Your task to perform on an android device: manage bookmarks in the chrome app Image 0: 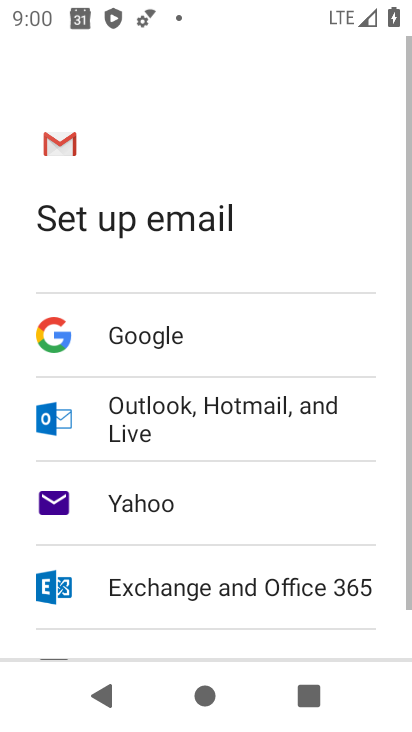
Step 0: press home button
Your task to perform on an android device: manage bookmarks in the chrome app Image 1: 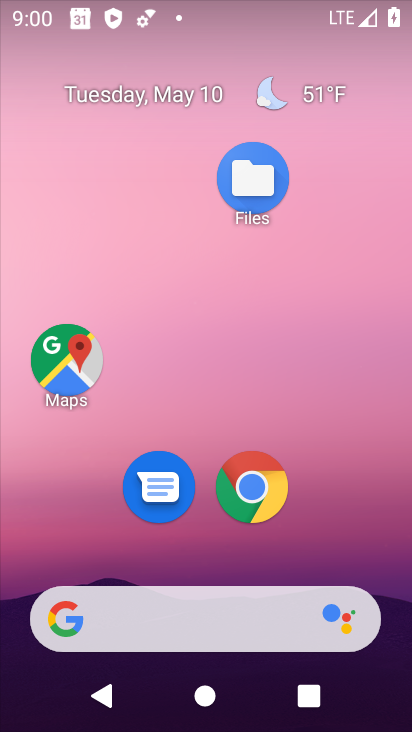
Step 1: click (261, 491)
Your task to perform on an android device: manage bookmarks in the chrome app Image 2: 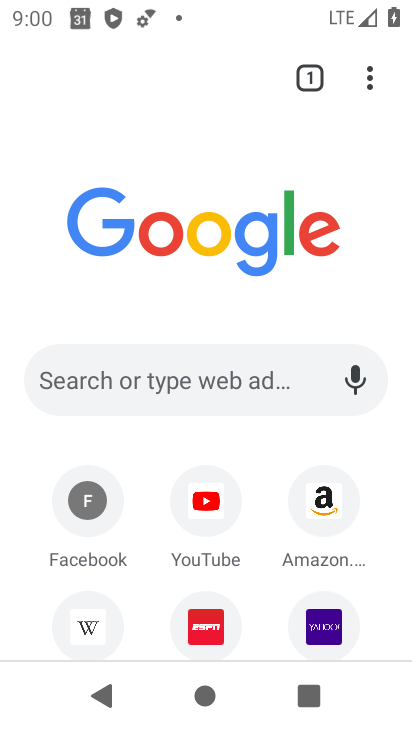
Step 2: click (363, 81)
Your task to perform on an android device: manage bookmarks in the chrome app Image 3: 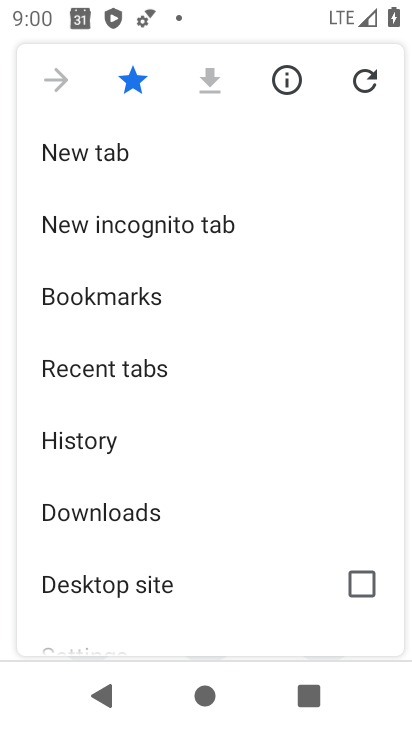
Step 3: drag from (201, 551) to (173, 251)
Your task to perform on an android device: manage bookmarks in the chrome app Image 4: 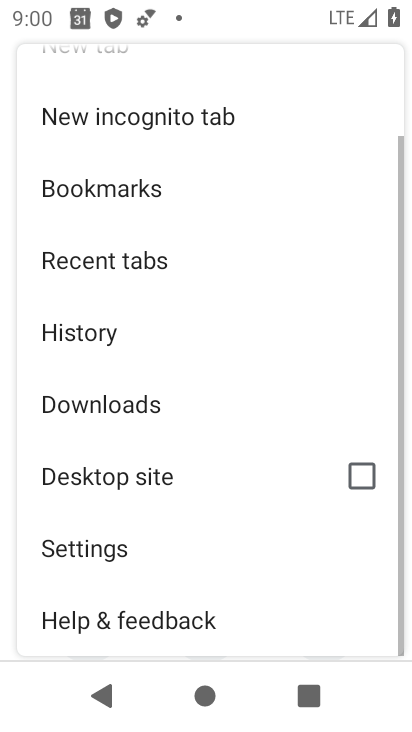
Step 4: click (102, 196)
Your task to perform on an android device: manage bookmarks in the chrome app Image 5: 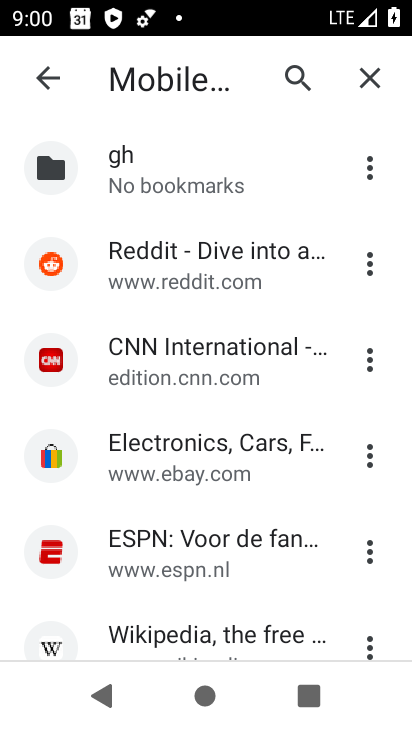
Step 5: click (361, 271)
Your task to perform on an android device: manage bookmarks in the chrome app Image 6: 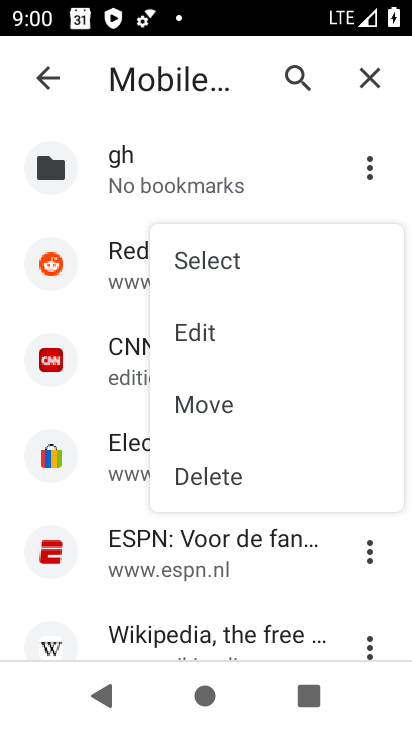
Step 6: click (227, 480)
Your task to perform on an android device: manage bookmarks in the chrome app Image 7: 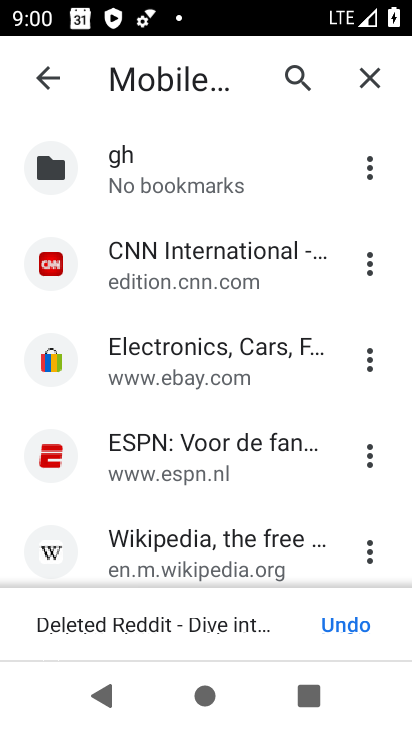
Step 7: task complete